Your task to perform on an android device: turn off notifications settings in the gmail app Image 0: 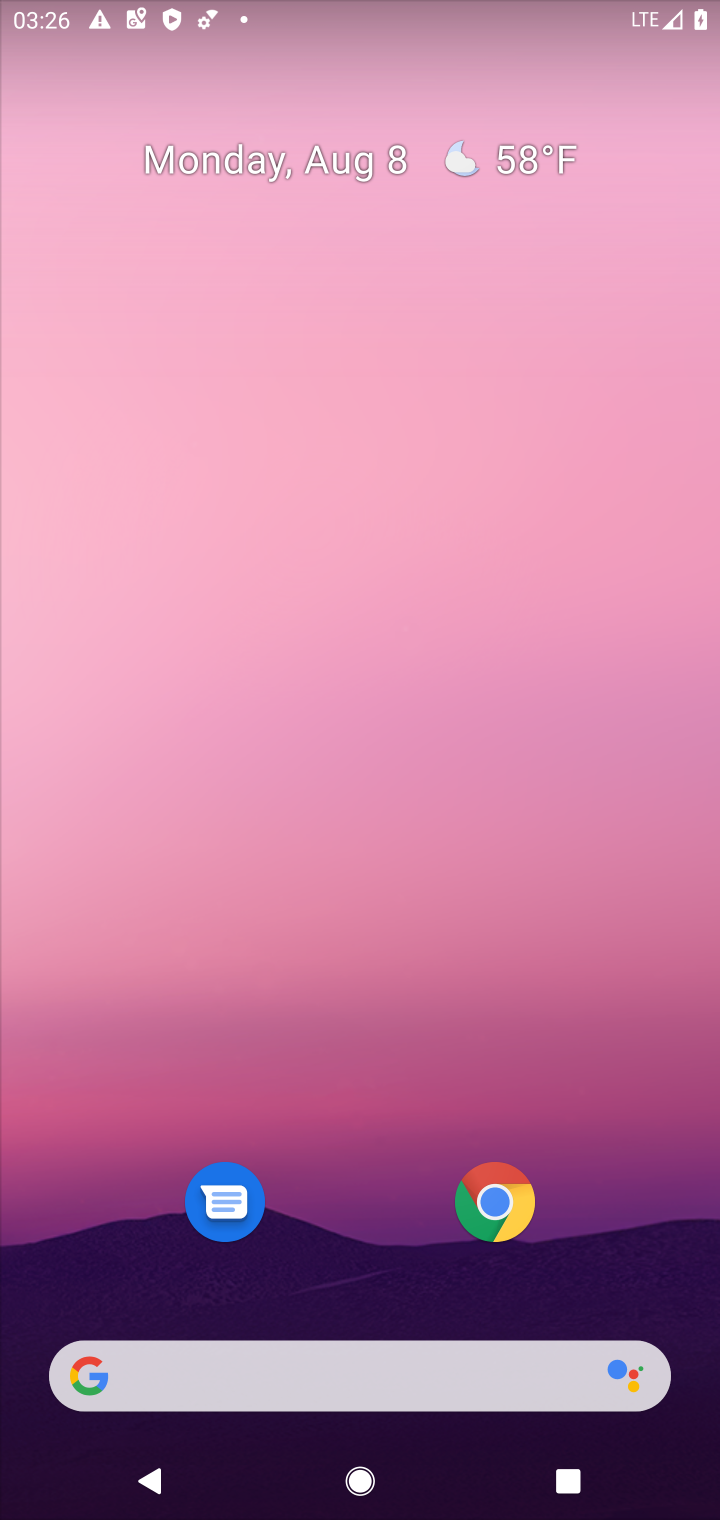
Step 0: drag from (323, 1307) to (382, 298)
Your task to perform on an android device: turn off notifications settings in the gmail app Image 1: 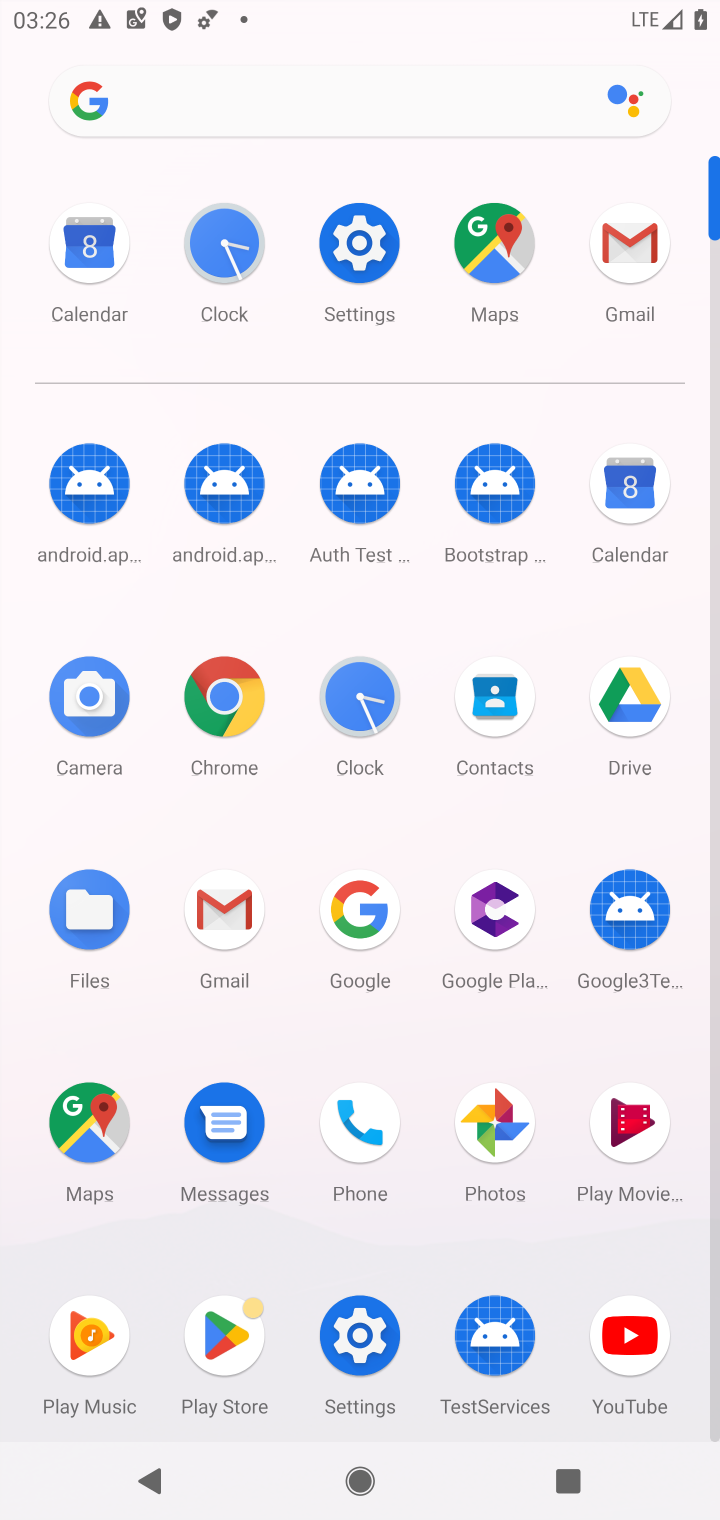
Step 1: click (634, 283)
Your task to perform on an android device: turn off notifications settings in the gmail app Image 2: 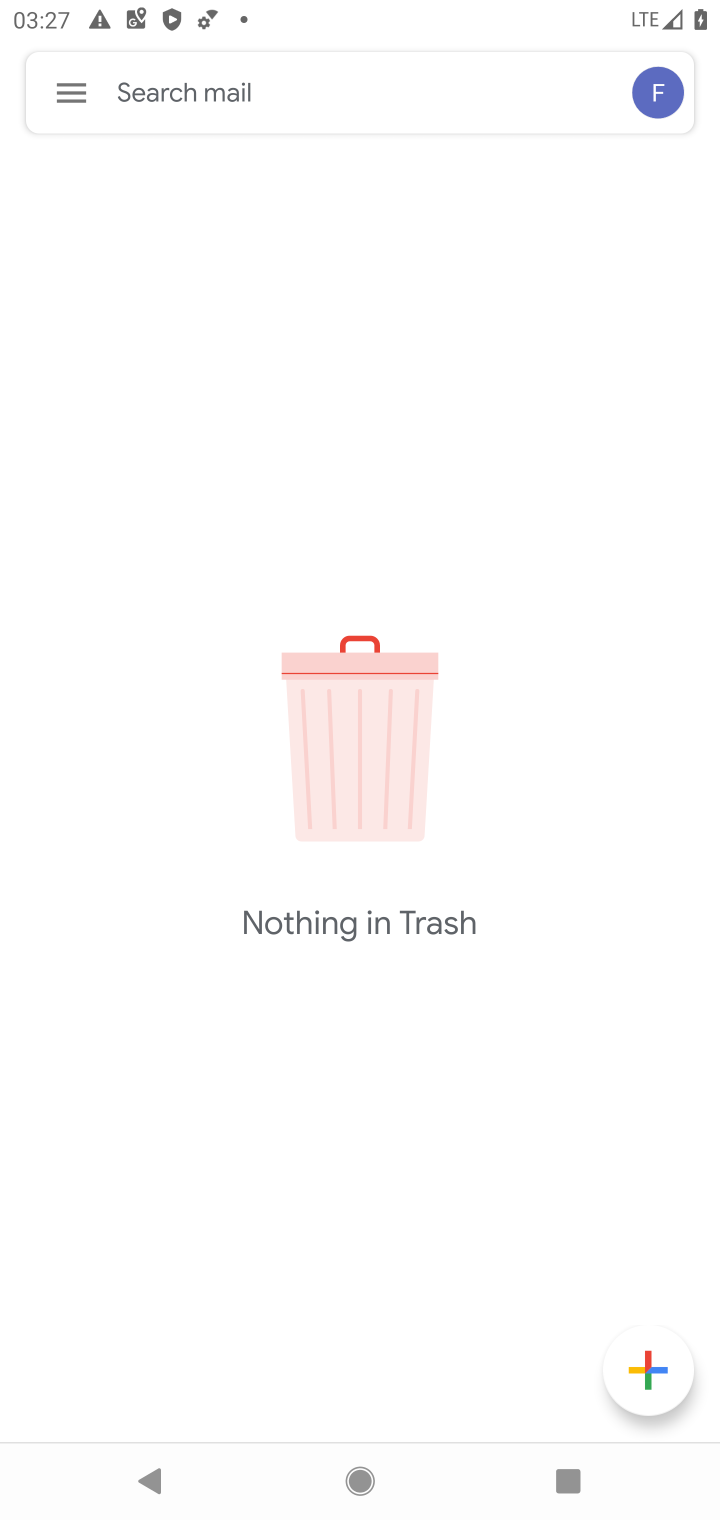
Step 2: click (63, 100)
Your task to perform on an android device: turn off notifications settings in the gmail app Image 3: 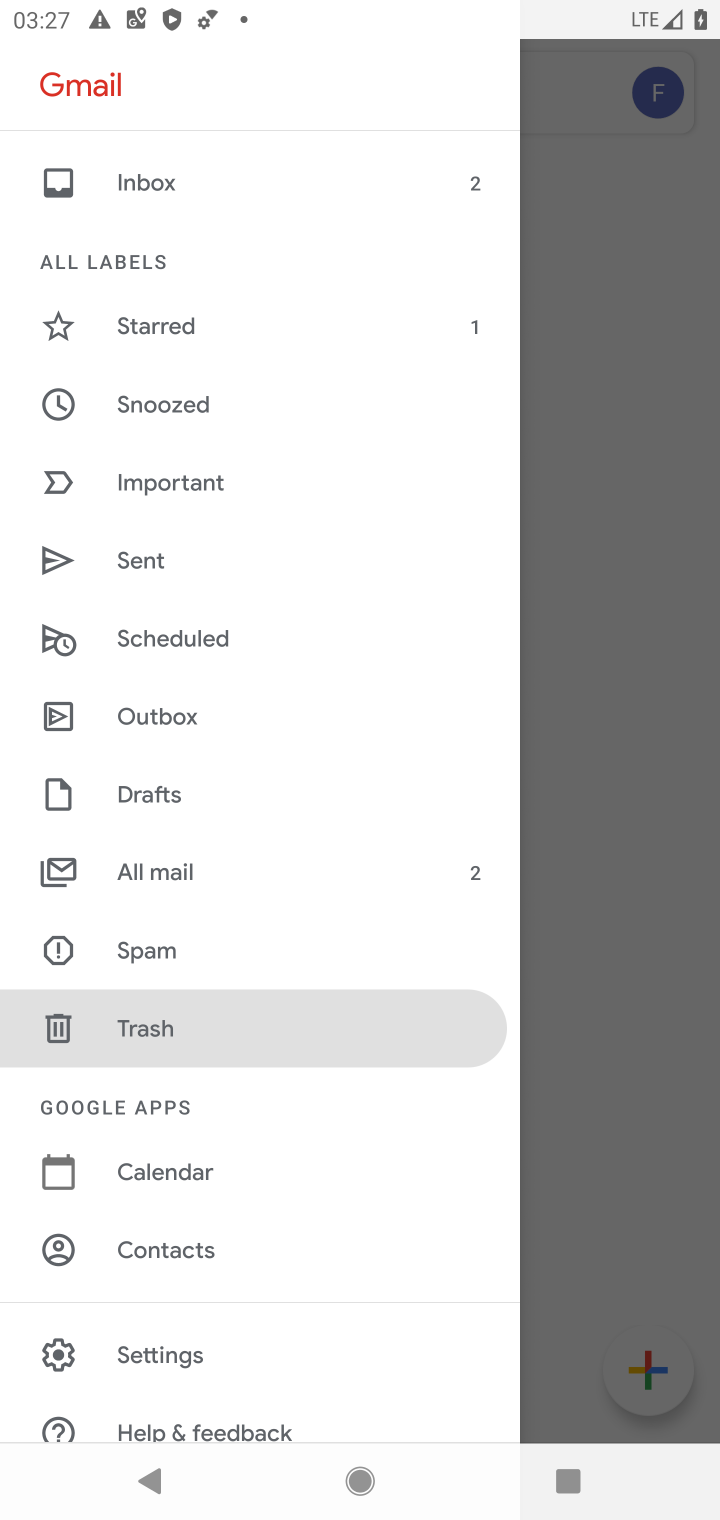
Step 3: click (163, 1362)
Your task to perform on an android device: turn off notifications settings in the gmail app Image 4: 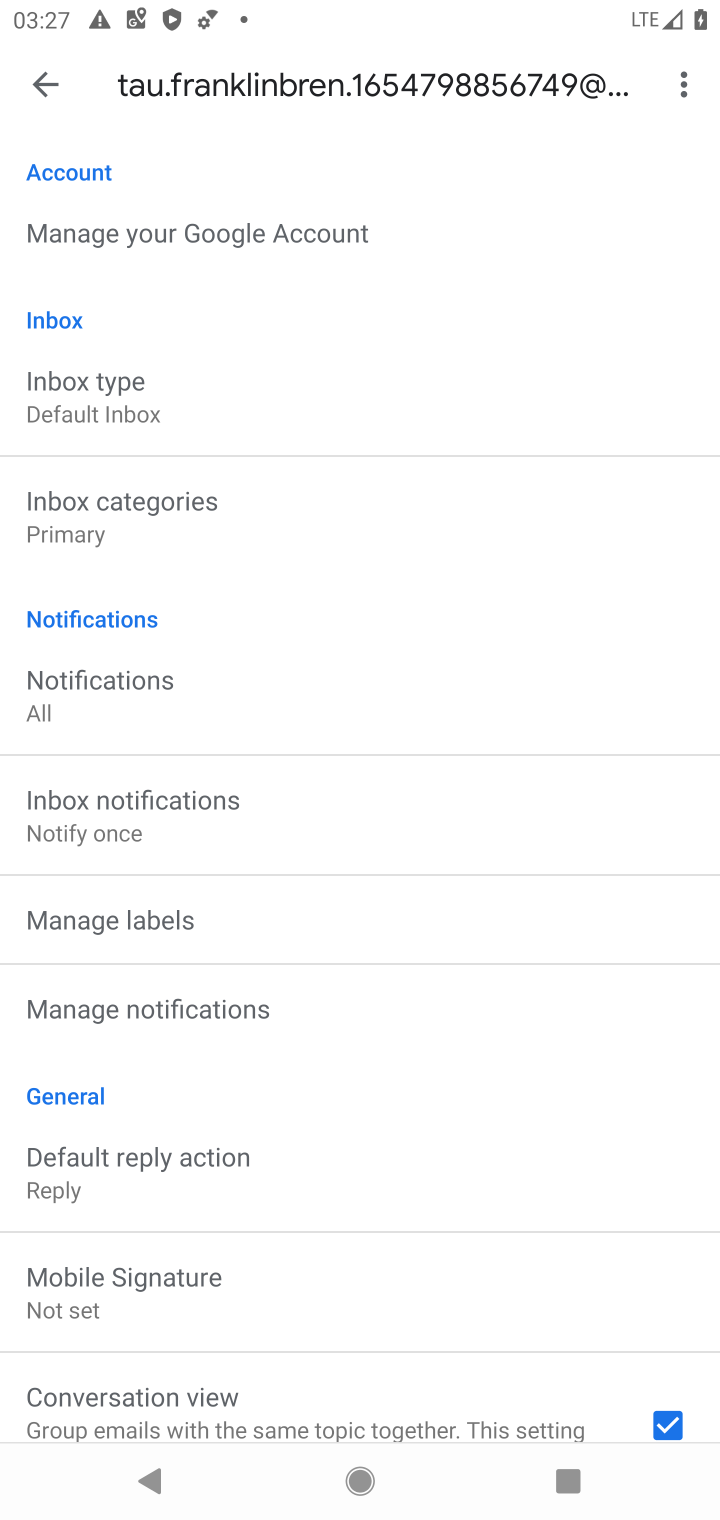
Step 4: click (147, 1019)
Your task to perform on an android device: turn off notifications settings in the gmail app Image 5: 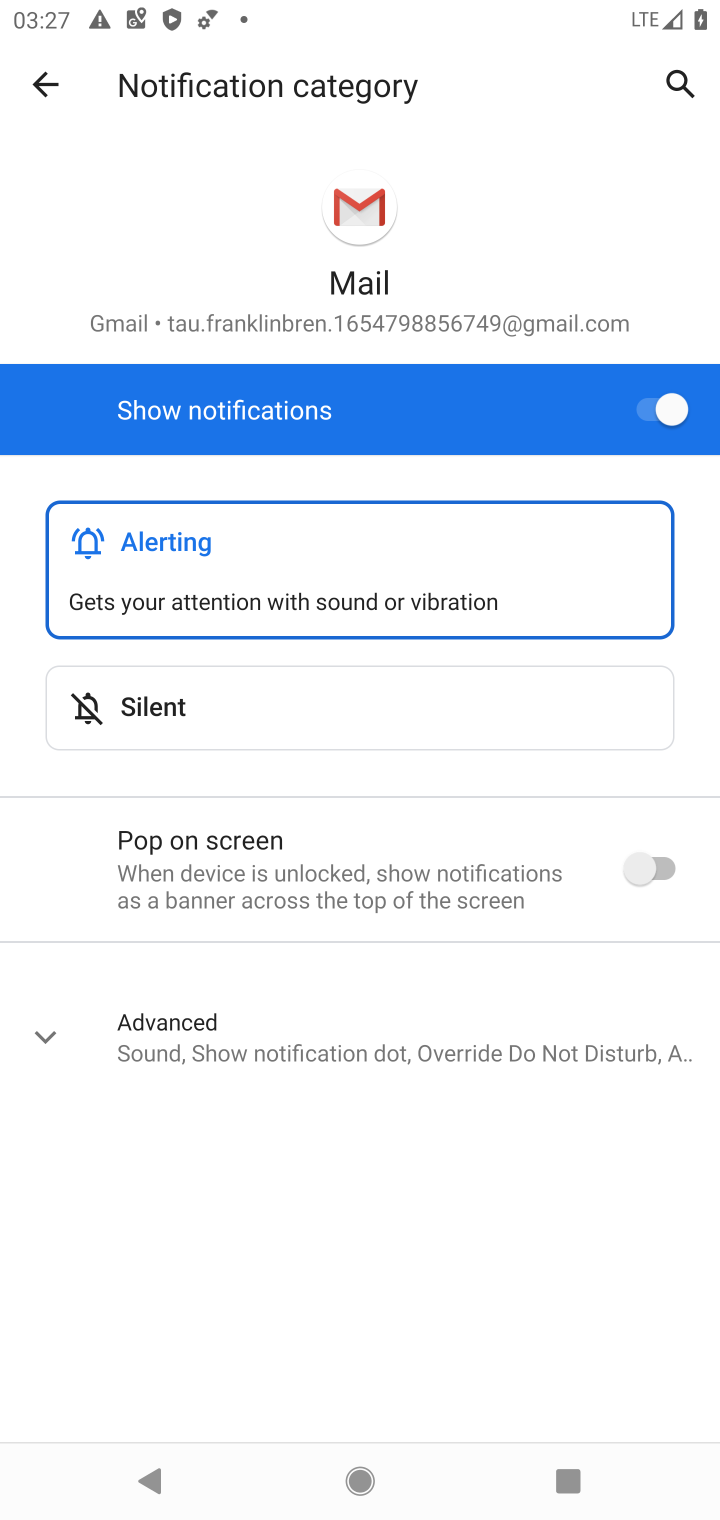
Step 5: click (646, 407)
Your task to perform on an android device: turn off notifications settings in the gmail app Image 6: 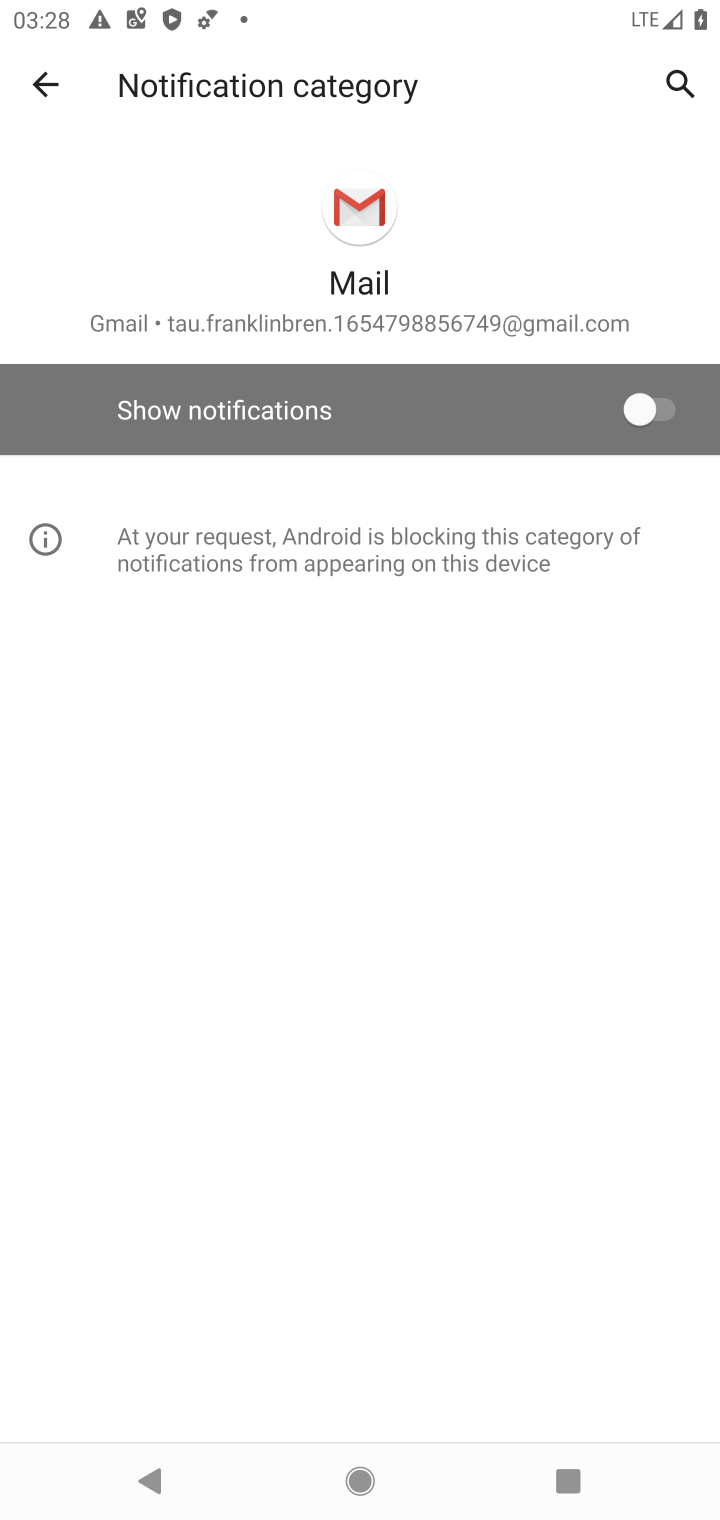
Step 6: task complete